Your task to perform on an android device: Set the phone to "Do not disturb". Image 0: 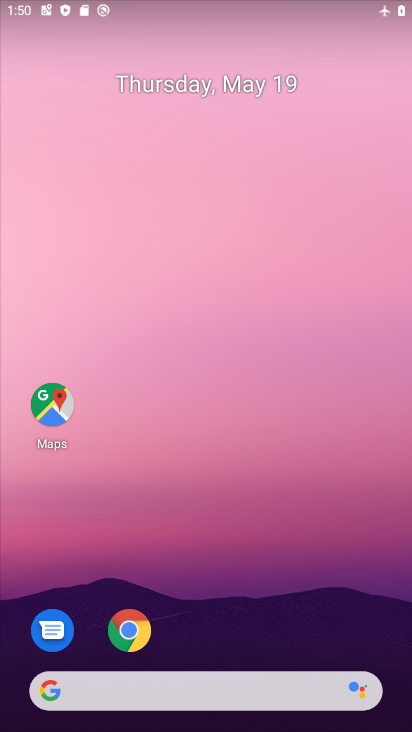
Step 0: drag from (160, 2) to (184, 621)
Your task to perform on an android device: Set the phone to "Do not disturb". Image 1: 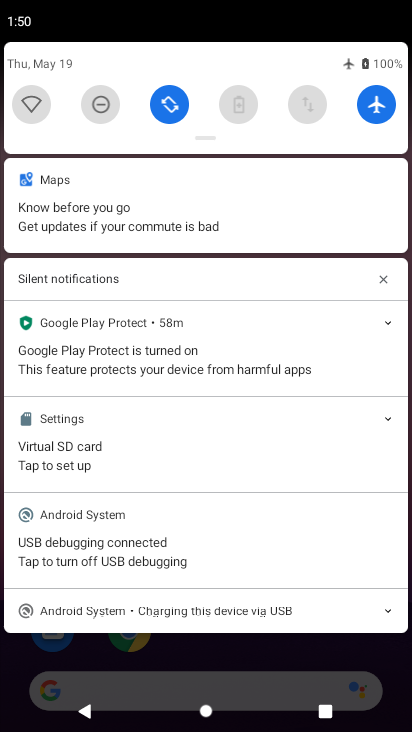
Step 1: click (85, 105)
Your task to perform on an android device: Set the phone to "Do not disturb". Image 2: 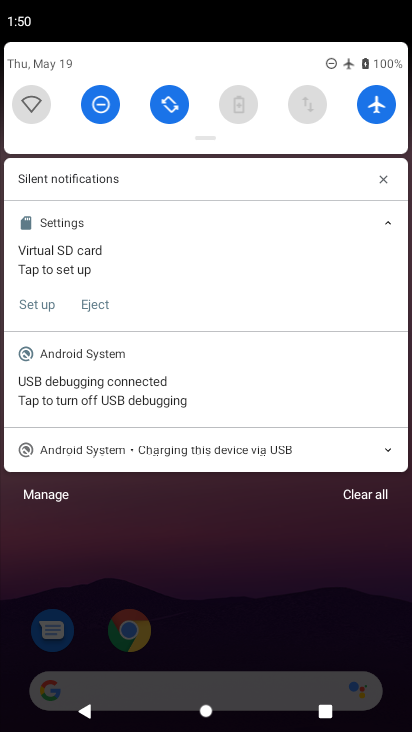
Step 2: task complete